Your task to perform on an android device: check out phone information Image 0: 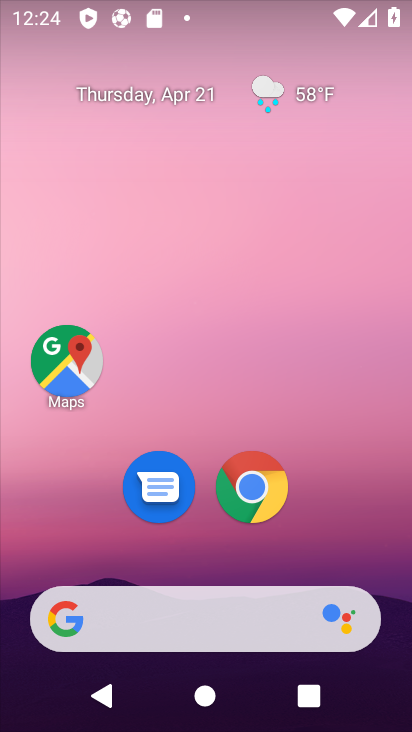
Step 0: drag from (384, 504) to (396, 10)
Your task to perform on an android device: check out phone information Image 1: 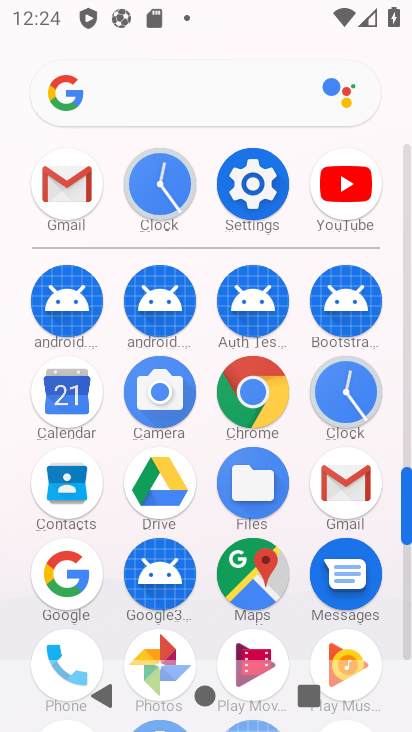
Step 1: click (250, 179)
Your task to perform on an android device: check out phone information Image 2: 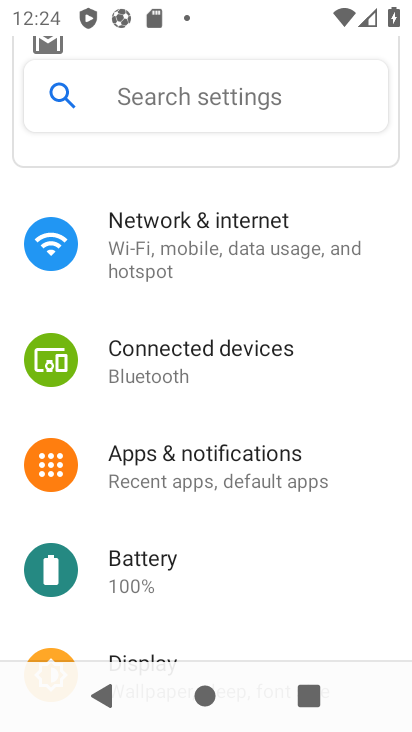
Step 2: drag from (394, 605) to (393, 150)
Your task to perform on an android device: check out phone information Image 3: 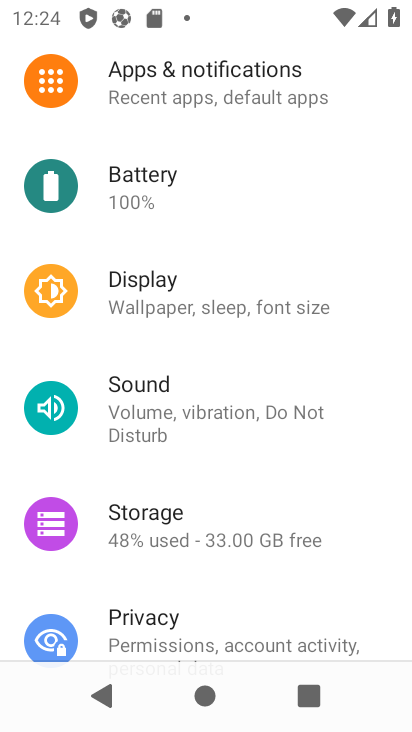
Step 3: drag from (326, 511) to (347, 173)
Your task to perform on an android device: check out phone information Image 4: 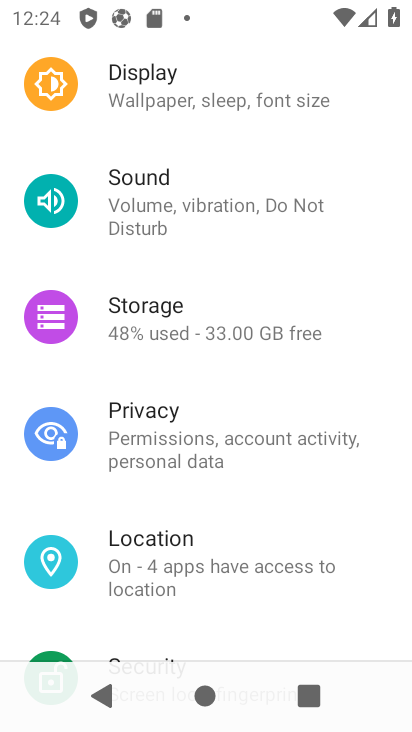
Step 4: drag from (345, 554) to (336, 90)
Your task to perform on an android device: check out phone information Image 5: 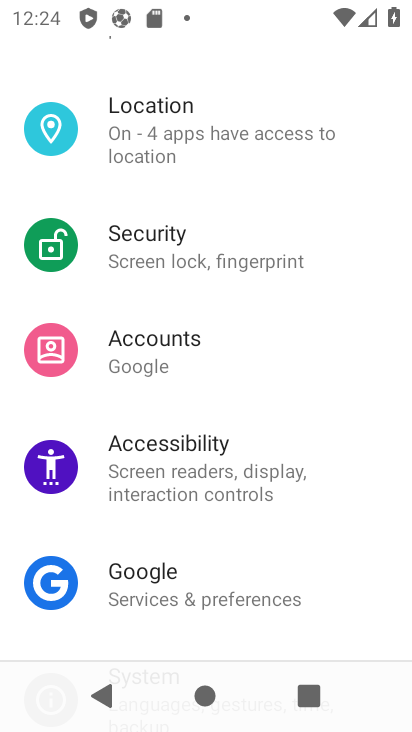
Step 5: drag from (340, 602) to (344, 64)
Your task to perform on an android device: check out phone information Image 6: 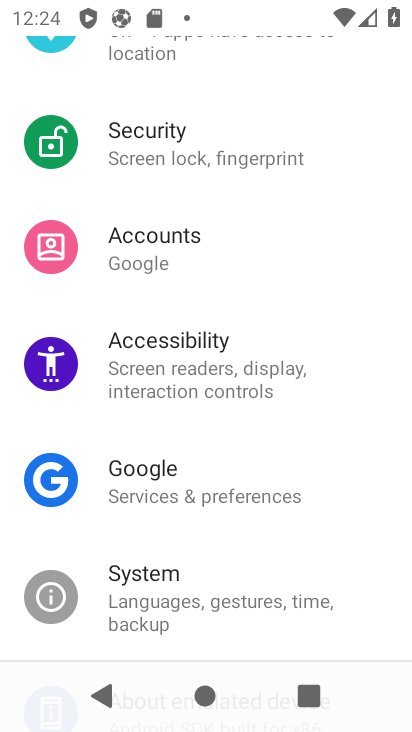
Step 6: drag from (335, 568) to (340, 166)
Your task to perform on an android device: check out phone information Image 7: 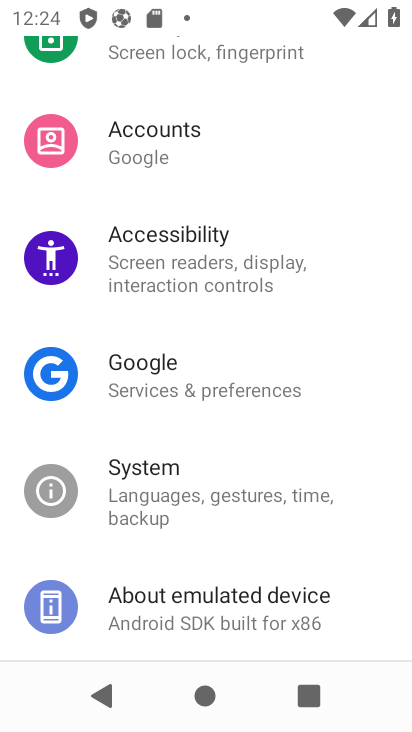
Step 7: click (182, 600)
Your task to perform on an android device: check out phone information Image 8: 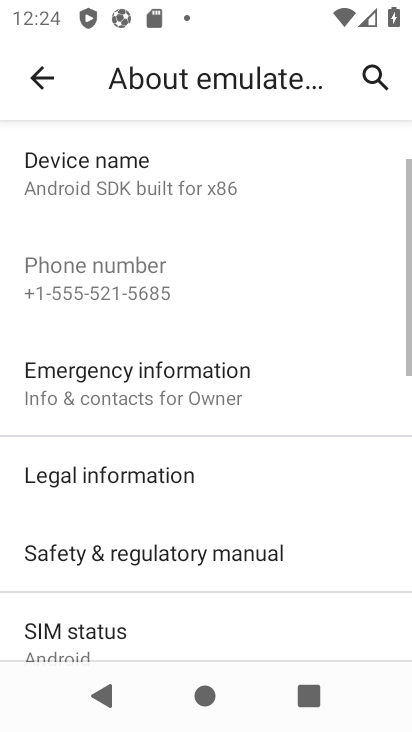
Step 8: task complete